Your task to perform on an android device: Add "usb-a to usb-b" to the cart on amazon.com, then select checkout. Image 0: 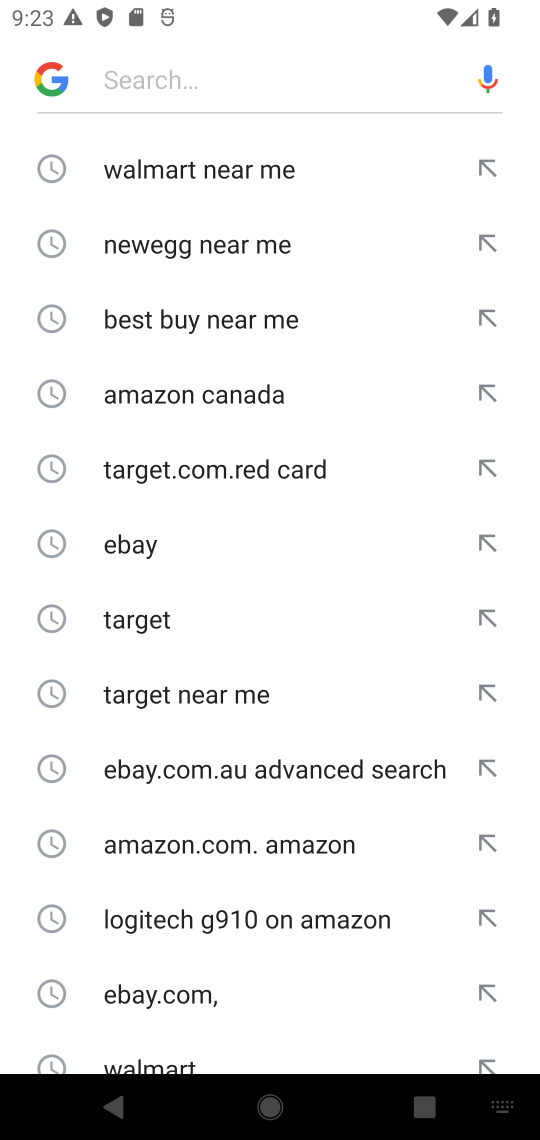
Step 0: click (240, 60)
Your task to perform on an android device: Add "usb-a to usb-b" to the cart on amazon.com, then select checkout. Image 1: 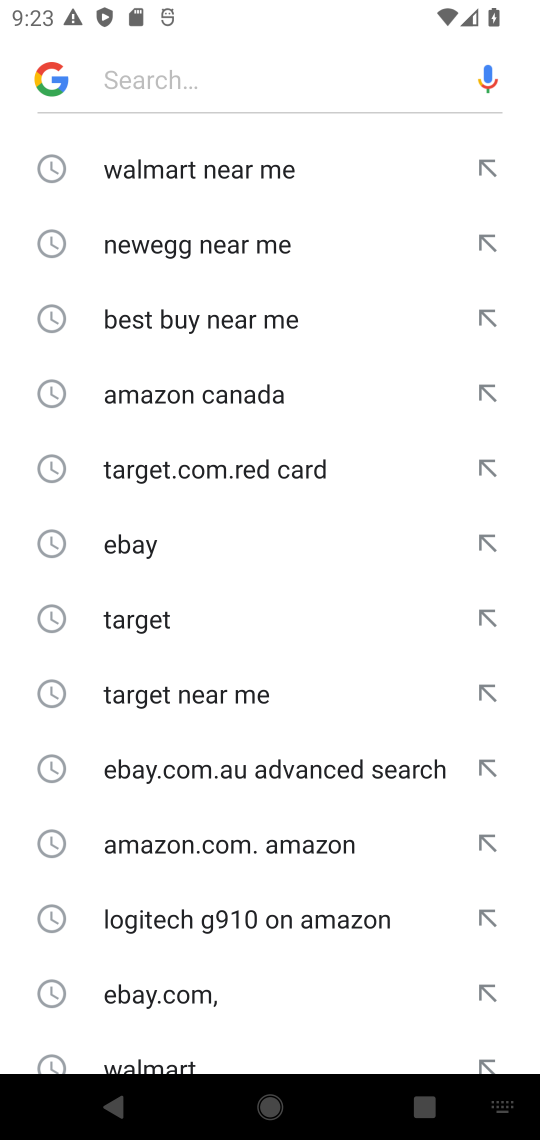
Step 1: type "amazon "
Your task to perform on an android device: Add "usb-a to usb-b" to the cart on amazon.com, then select checkout. Image 2: 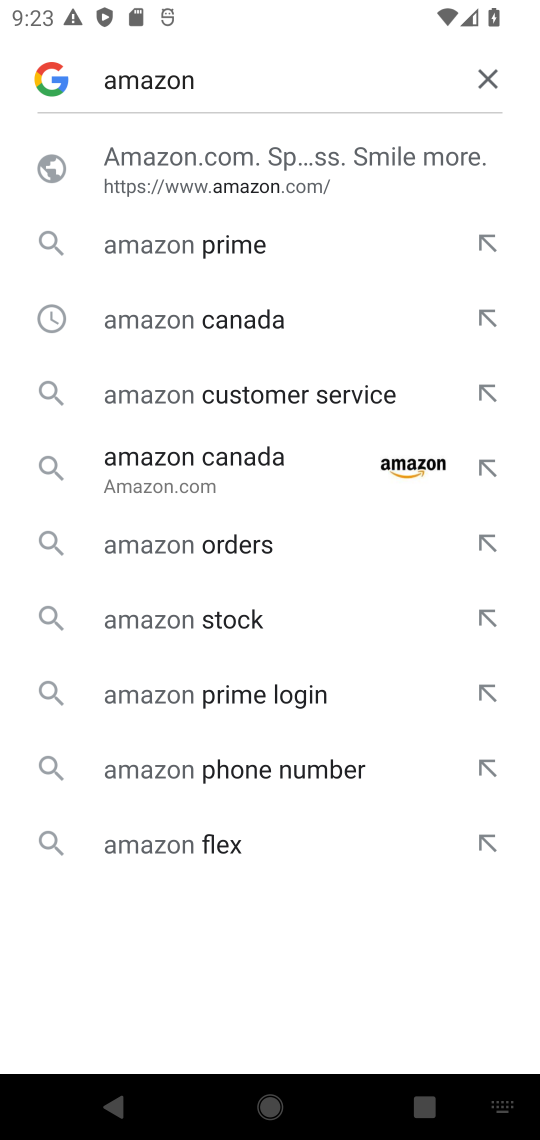
Step 2: click (169, 173)
Your task to perform on an android device: Add "usb-a to usb-b" to the cart on amazon.com, then select checkout. Image 3: 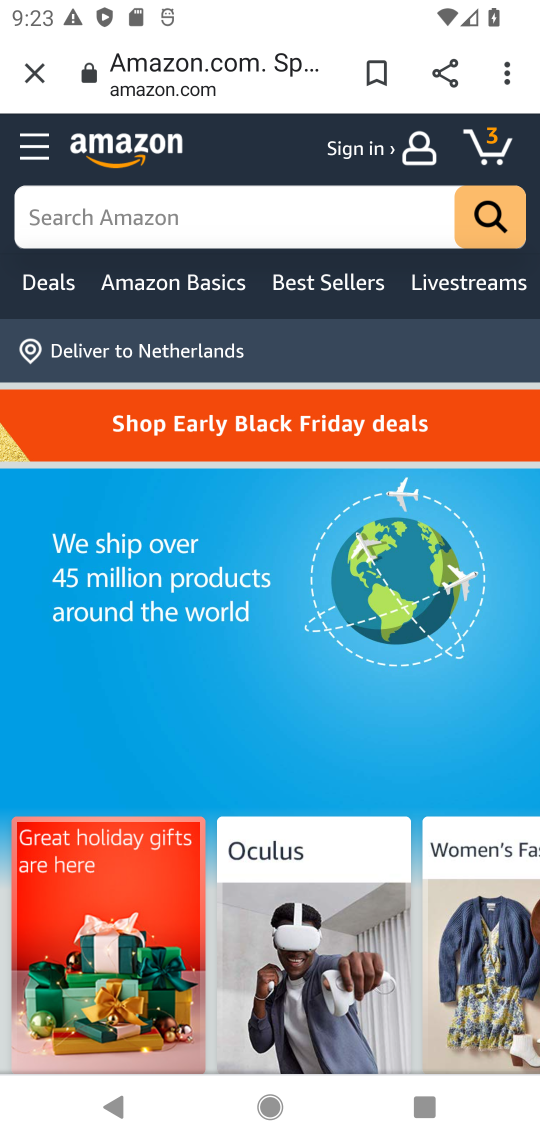
Step 3: click (187, 214)
Your task to perform on an android device: Add "usb-a to usb-b" to the cart on amazon.com, then select checkout. Image 4: 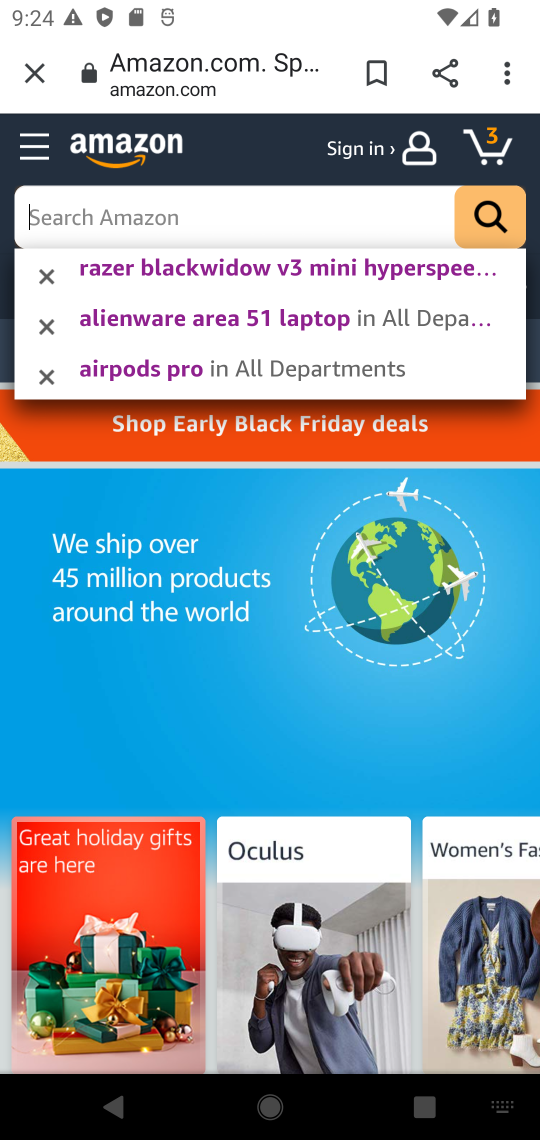
Step 4: type "usb-a to usb-b "
Your task to perform on an android device: Add "usb-a to usb-b" to the cart on amazon.com, then select checkout. Image 5: 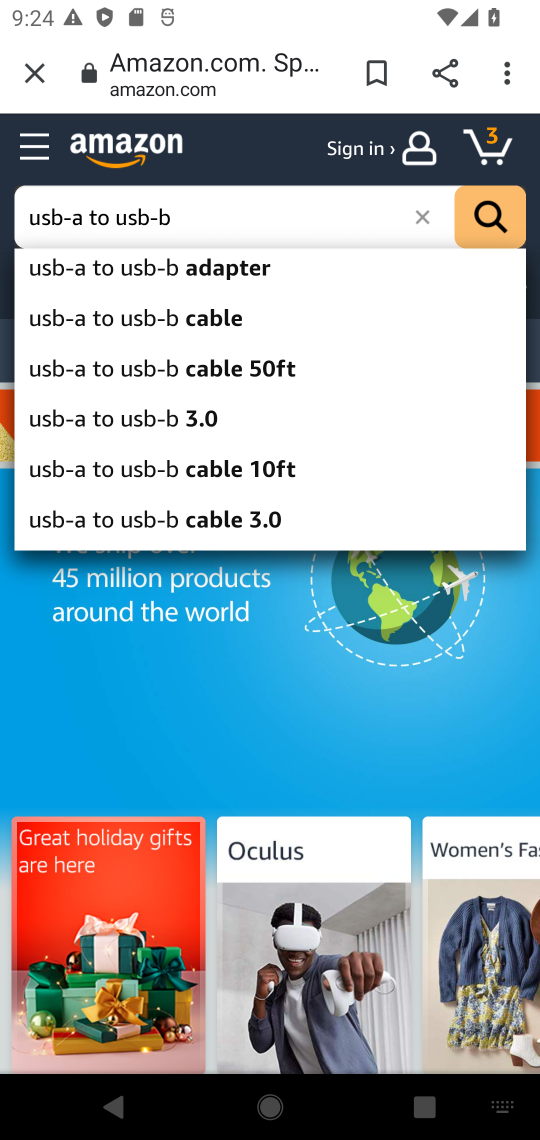
Step 5: click (115, 276)
Your task to perform on an android device: Add "usb-a to usb-b" to the cart on amazon.com, then select checkout. Image 6: 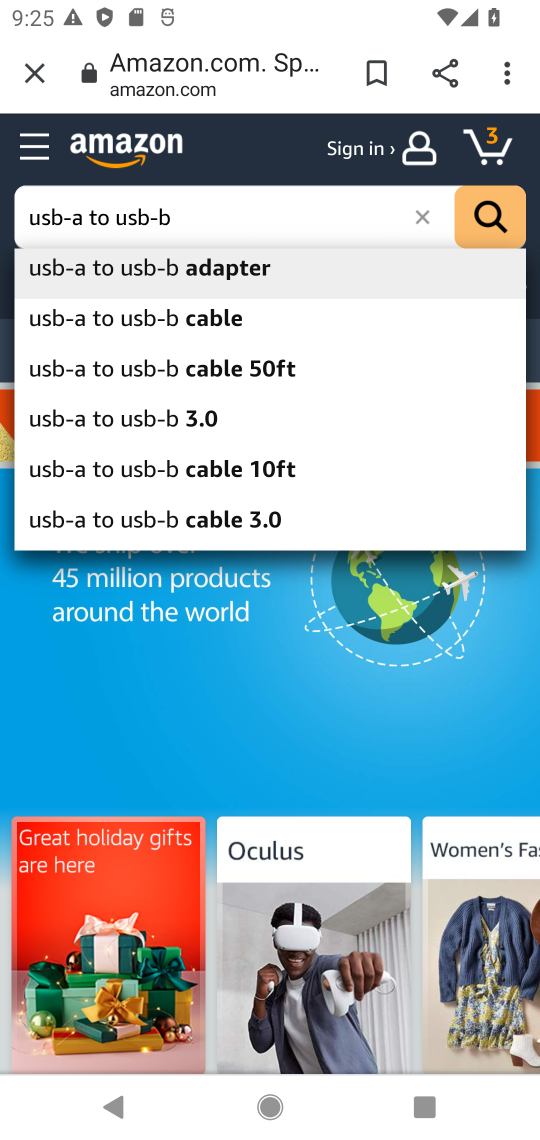
Step 6: click (115, 276)
Your task to perform on an android device: Add "usb-a to usb-b" to the cart on amazon.com, then select checkout. Image 7: 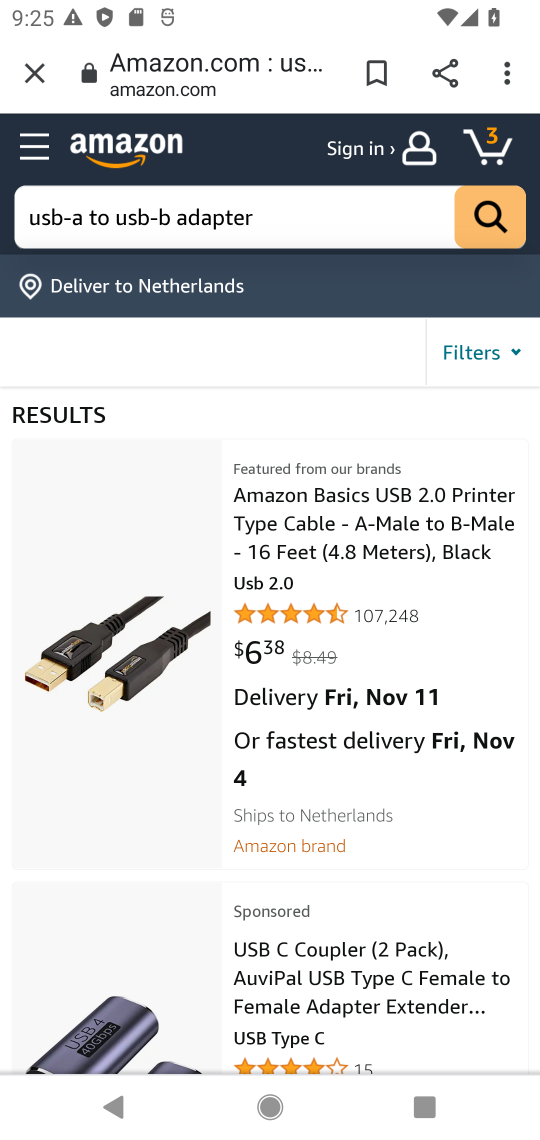
Step 7: click (377, 518)
Your task to perform on an android device: Add "usb-a to usb-b" to the cart on amazon.com, then select checkout. Image 8: 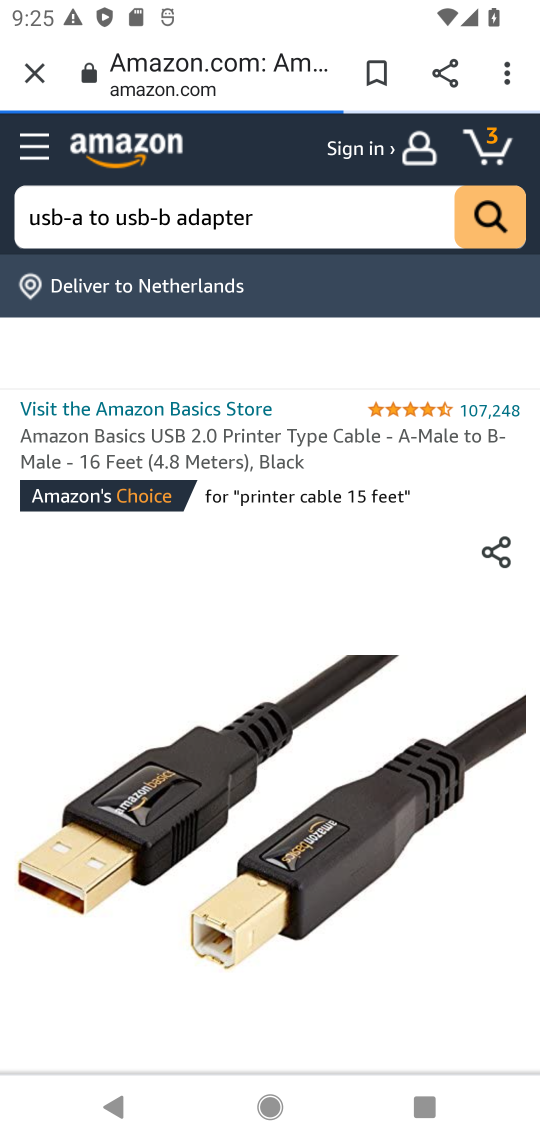
Step 8: drag from (325, 884) to (414, 257)
Your task to perform on an android device: Add "usb-a to usb-b" to the cart on amazon.com, then select checkout. Image 9: 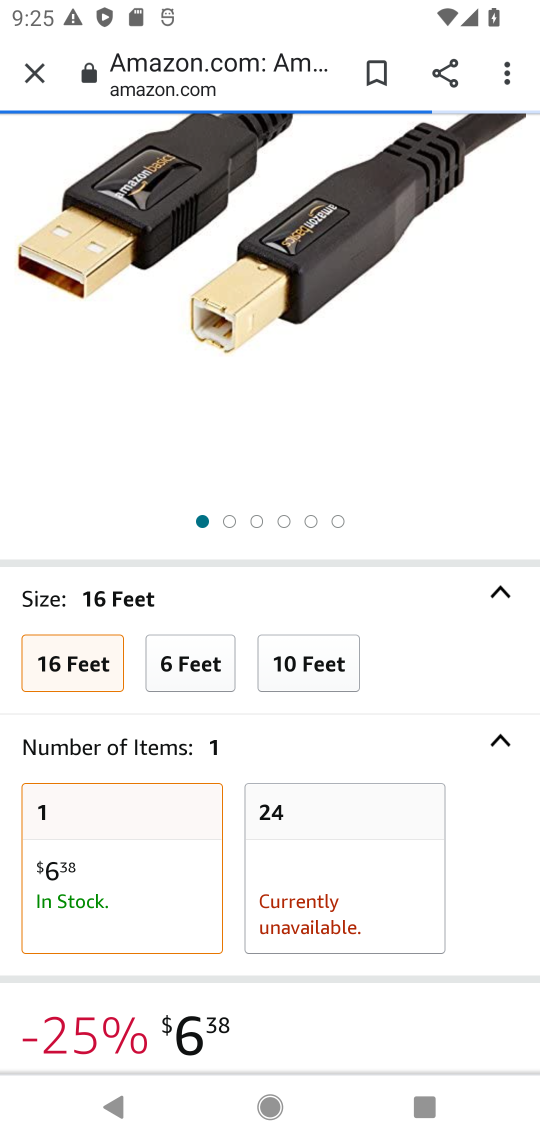
Step 9: drag from (270, 956) to (388, 370)
Your task to perform on an android device: Add "usb-a to usb-b" to the cart on amazon.com, then select checkout. Image 10: 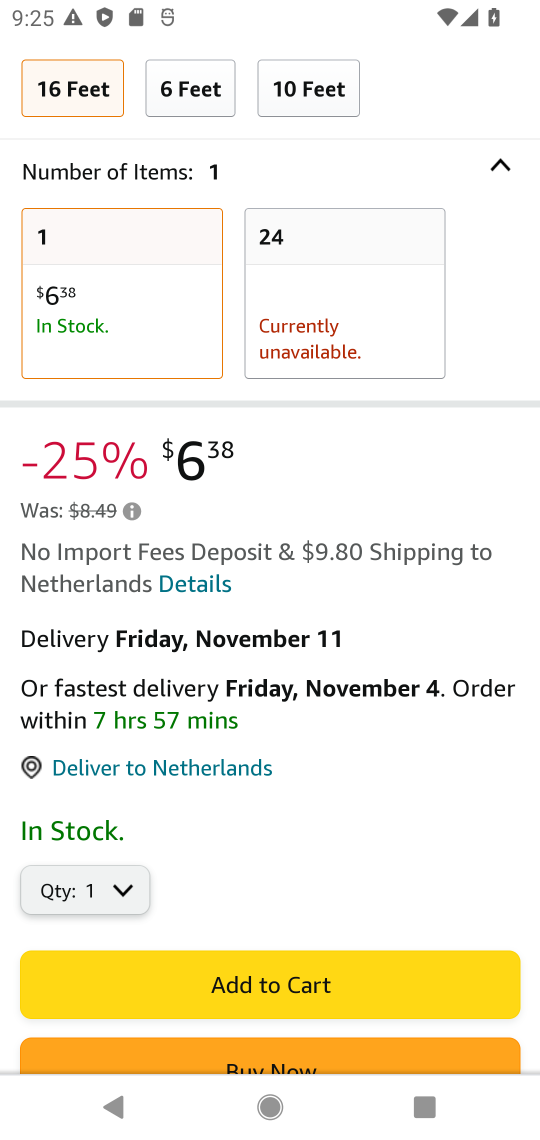
Step 10: click (264, 972)
Your task to perform on an android device: Add "usb-a to usb-b" to the cart on amazon.com, then select checkout. Image 11: 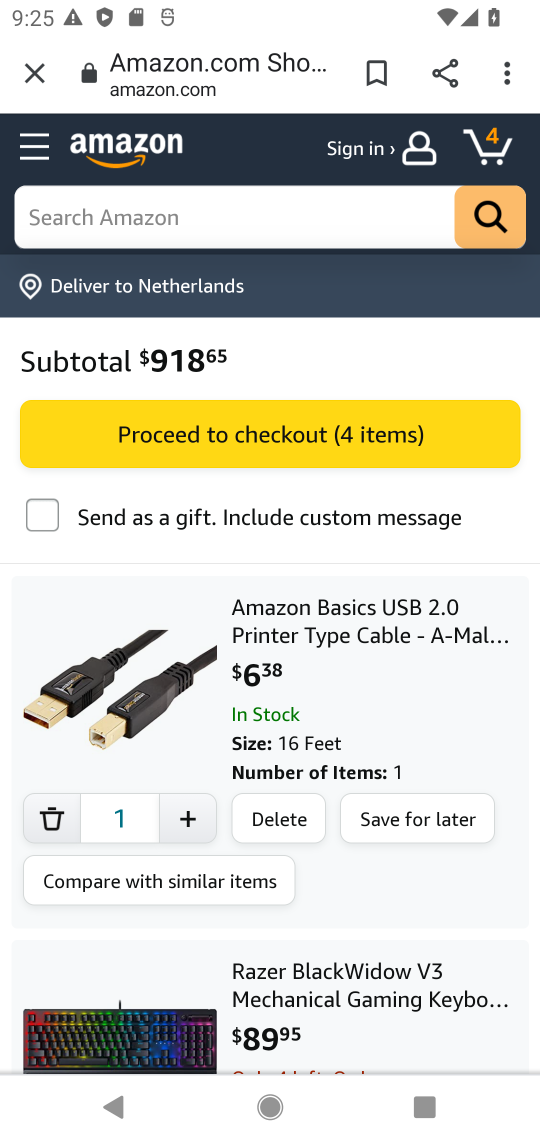
Step 11: task complete